Your task to perform on an android device: Check the news Image 0: 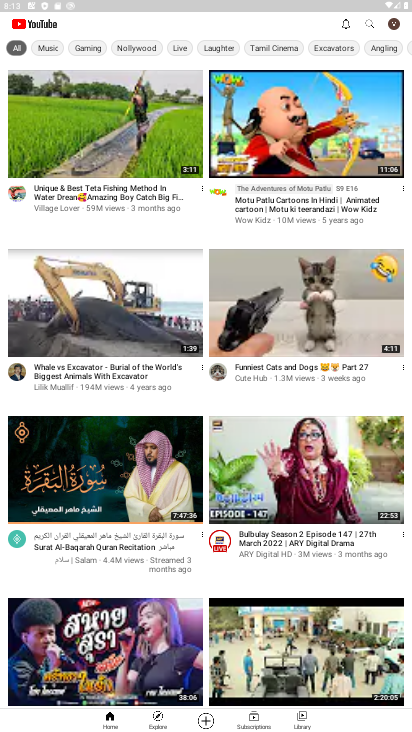
Step 0: press home button
Your task to perform on an android device: Check the news Image 1: 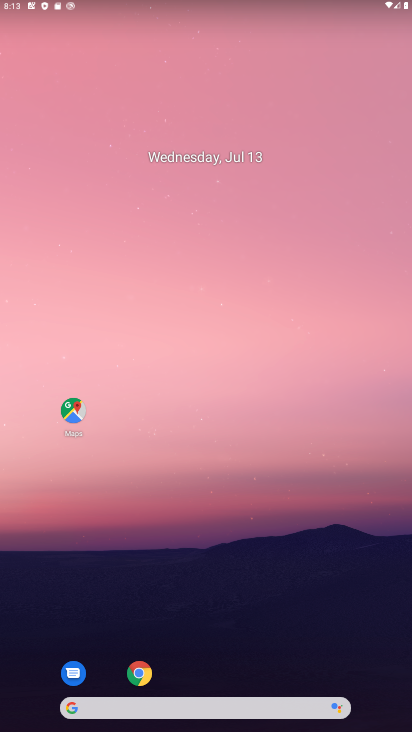
Step 1: click (137, 672)
Your task to perform on an android device: Check the news Image 2: 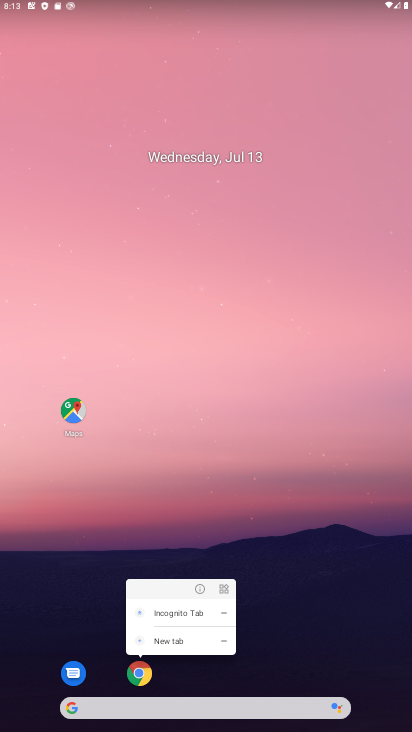
Step 2: click (138, 672)
Your task to perform on an android device: Check the news Image 3: 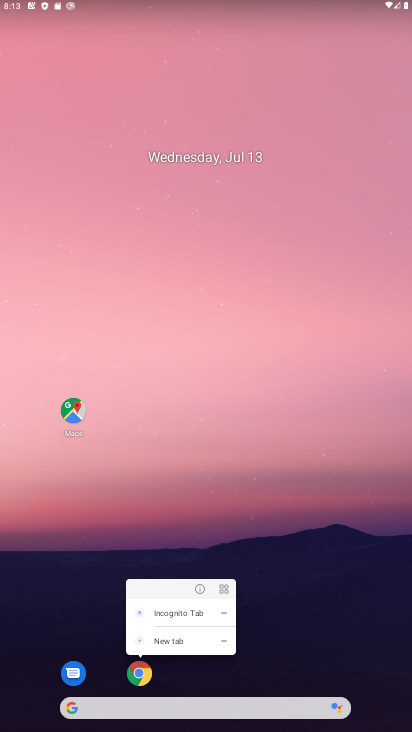
Step 3: click (392, 666)
Your task to perform on an android device: Check the news Image 4: 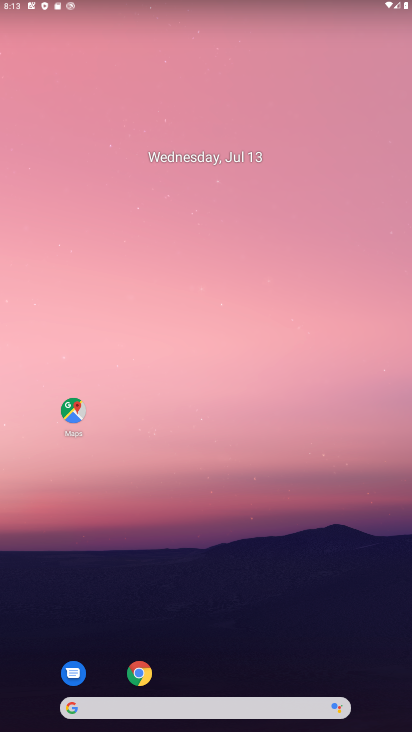
Step 4: drag from (378, 653) to (320, 113)
Your task to perform on an android device: Check the news Image 5: 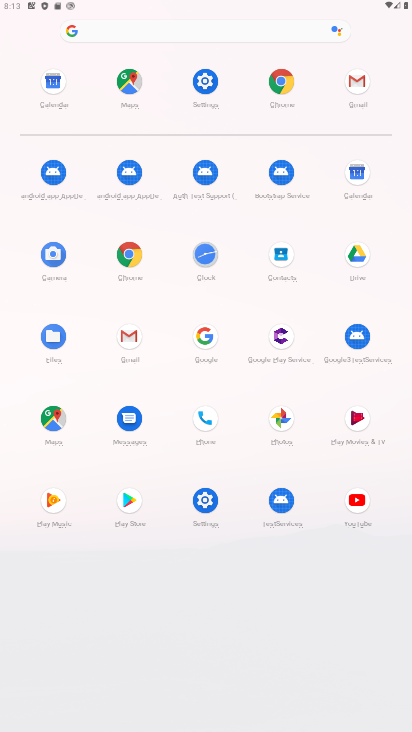
Step 5: click (128, 255)
Your task to perform on an android device: Check the news Image 6: 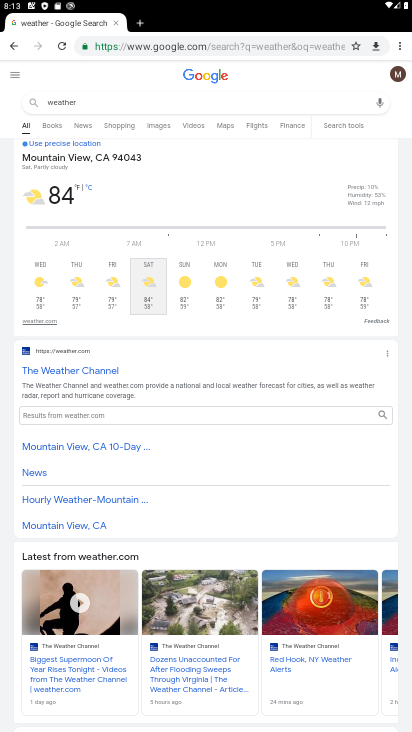
Step 6: click (160, 43)
Your task to perform on an android device: Check the news Image 7: 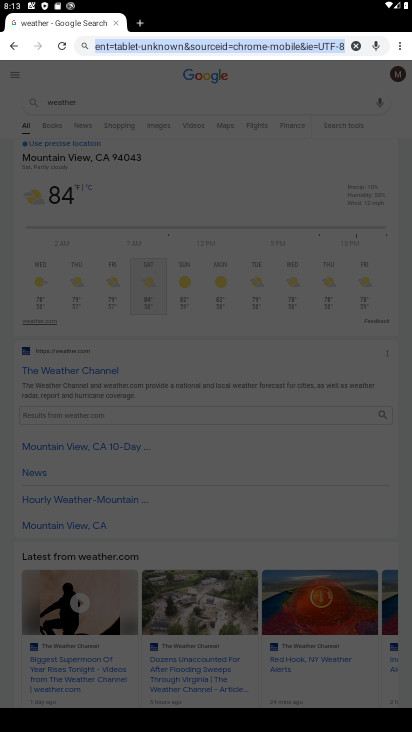
Step 7: type "news"
Your task to perform on an android device: Check the news Image 8: 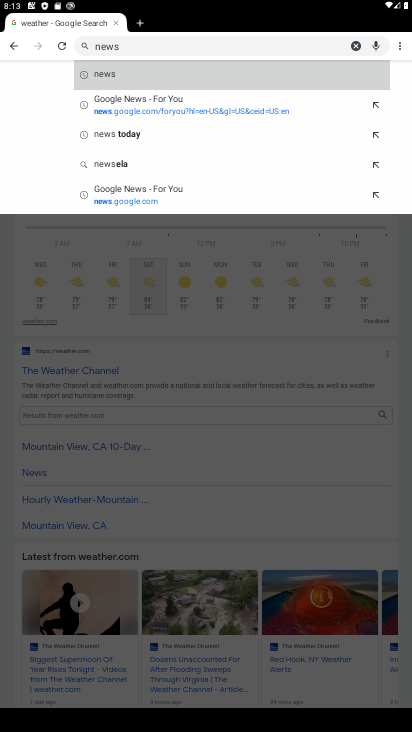
Step 8: click (144, 69)
Your task to perform on an android device: Check the news Image 9: 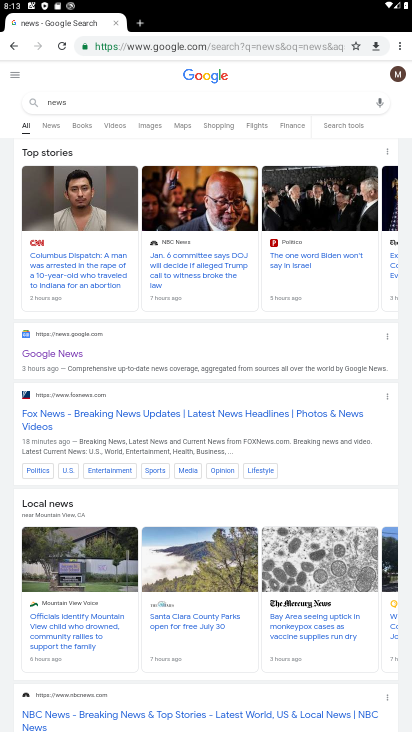
Step 9: click (69, 350)
Your task to perform on an android device: Check the news Image 10: 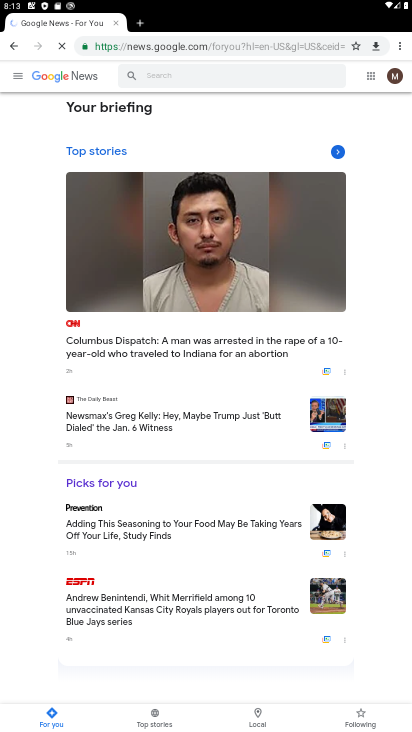
Step 10: task complete